Your task to perform on an android device: Go to accessibility settings Image 0: 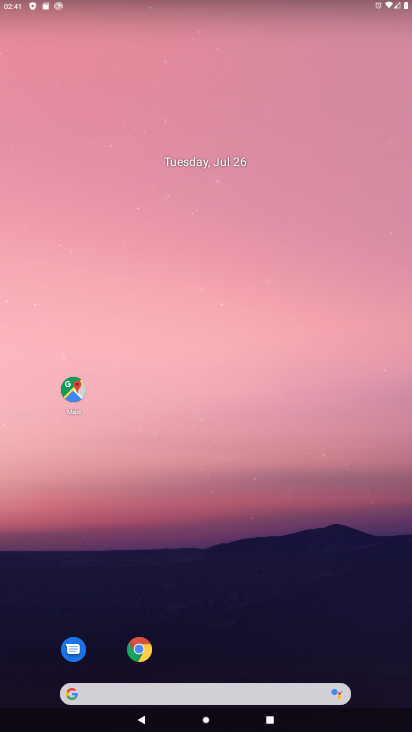
Step 0: drag from (202, 694) to (401, 181)
Your task to perform on an android device: Go to accessibility settings Image 1: 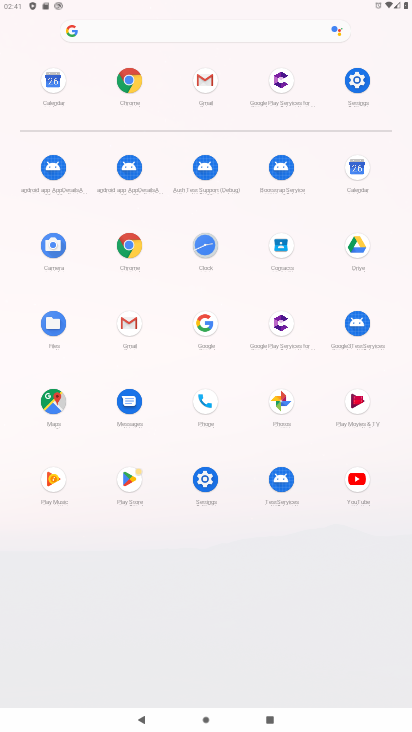
Step 1: click (356, 80)
Your task to perform on an android device: Go to accessibility settings Image 2: 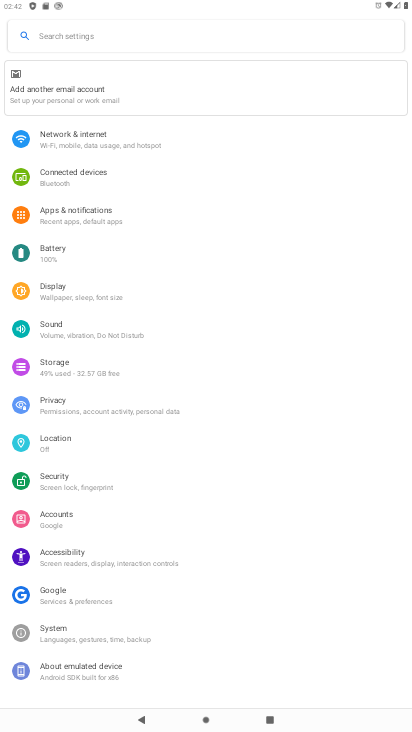
Step 2: click (85, 556)
Your task to perform on an android device: Go to accessibility settings Image 3: 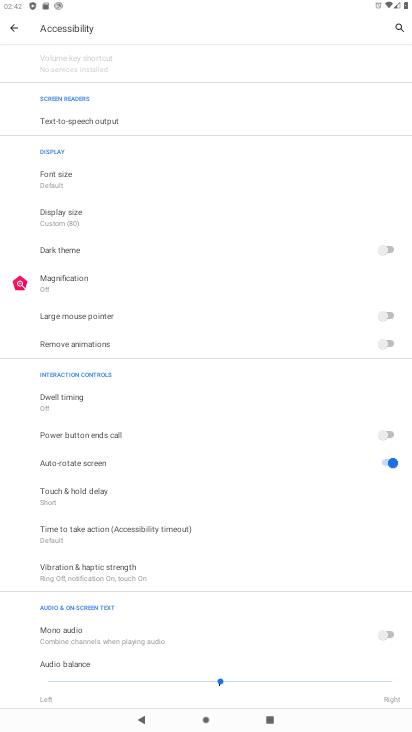
Step 3: task complete